Your task to perform on an android device: turn on notifications settings in the gmail app Image 0: 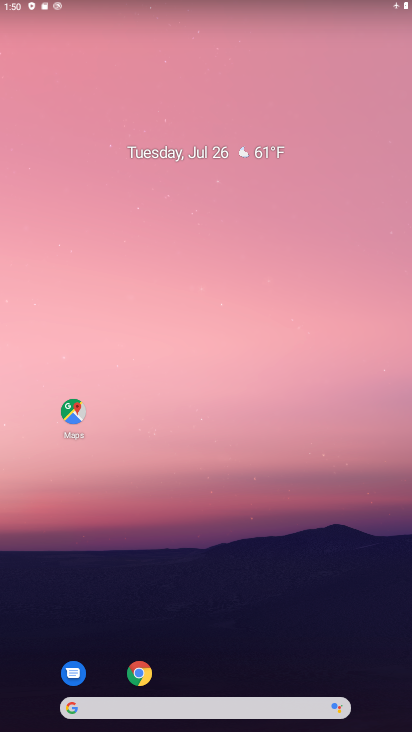
Step 0: click (229, 38)
Your task to perform on an android device: turn on notifications settings in the gmail app Image 1: 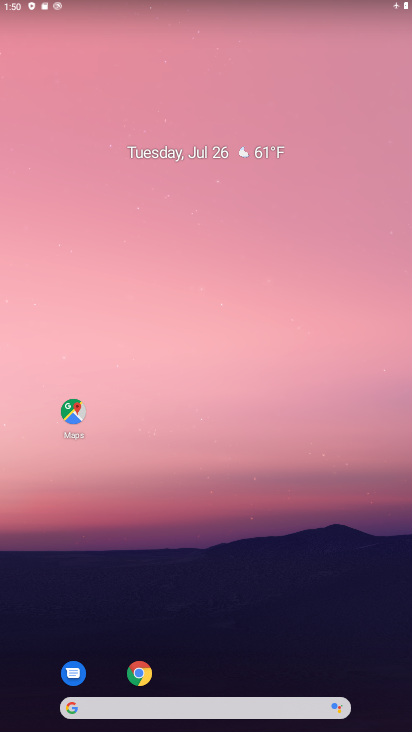
Step 1: drag from (206, 617) to (271, 171)
Your task to perform on an android device: turn on notifications settings in the gmail app Image 2: 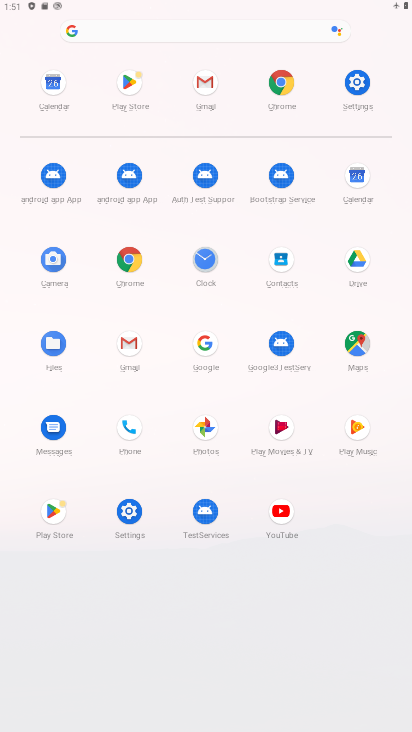
Step 2: click (123, 348)
Your task to perform on an android device: turn on notifications settings in the gmail app Image 3: 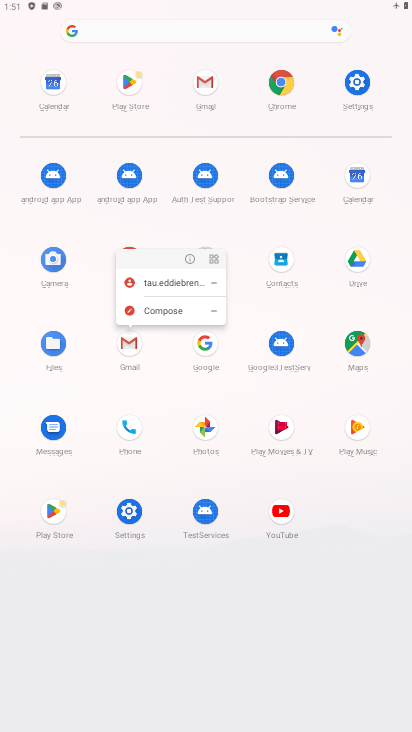
Step 3: click (189, 261)
Your task to perform on an android device: turn on notifications settings in the gmail app Image 4: 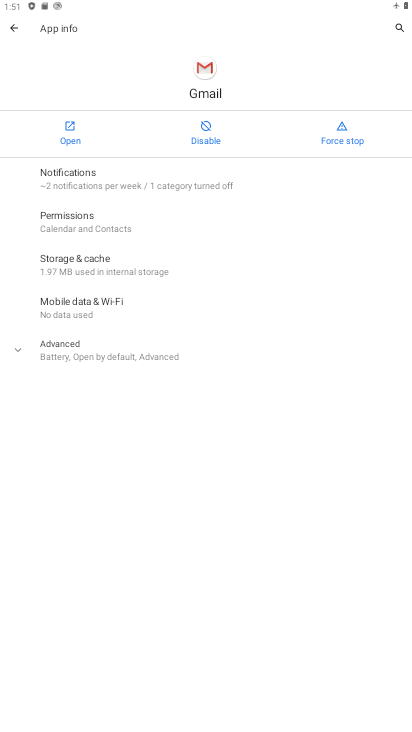
Step 4: click (82, 131)
Your task to perform on an android device: turn on notifications settings in the gmail app Image 5: 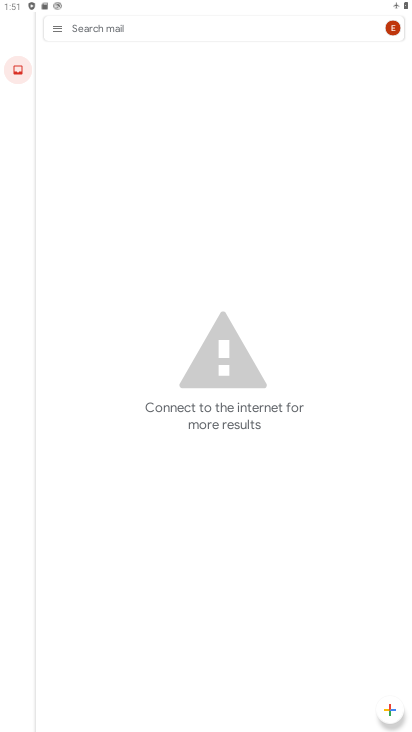
Step 5: click (58, 25)
Your task to perform on an android device: turn on notifications settings in the gmail app Image 6: 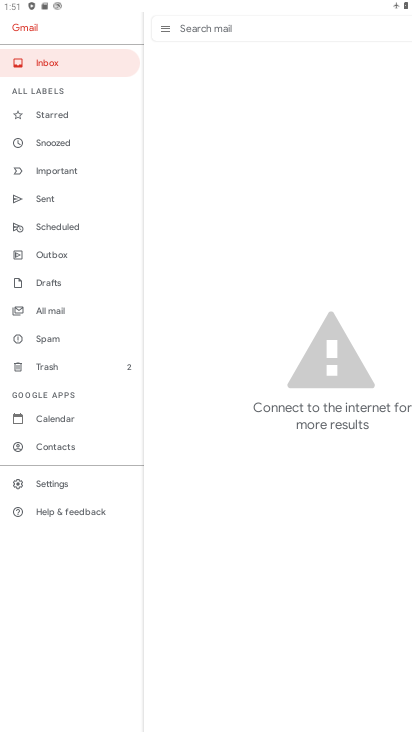
Step 6: click (53, 490)
Your task to perform on an android device: turn on notifications settings in the gmail app Image 7: 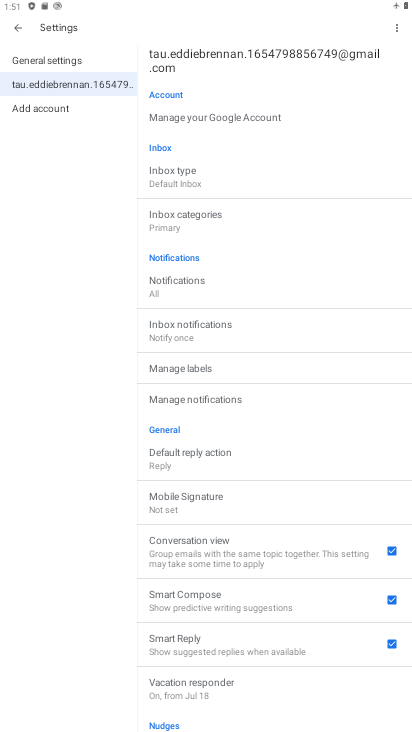
Step 7: click (215, 396)
Your task to perform on an android device: turn on notifications settings in the gmail app Image 8: 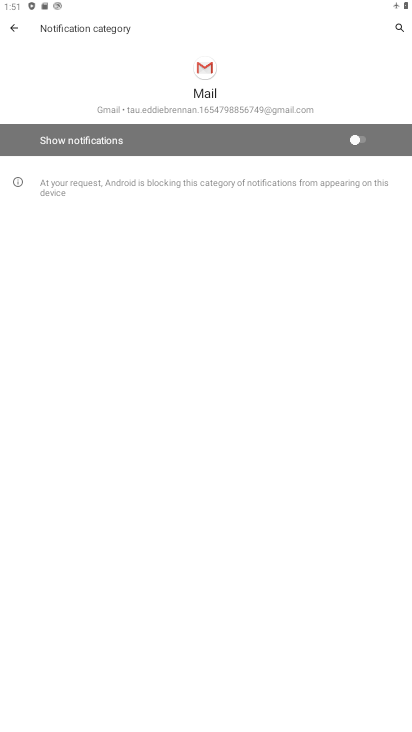
Step 8: drag from (250, 404) to (280, 215)
Your task to perform on an android device: turn on notifications settings in the gmail app Image 9: 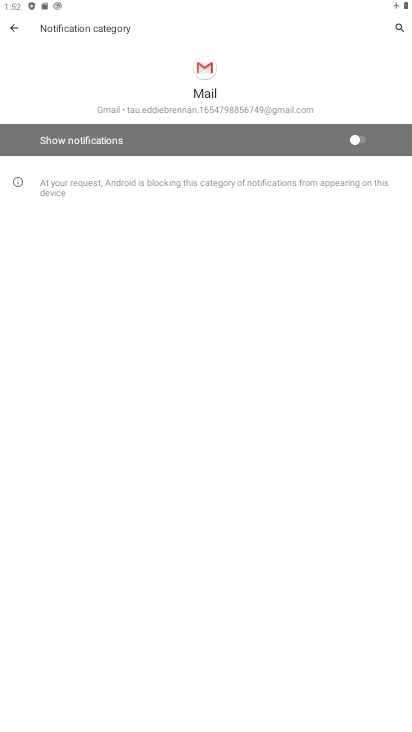
Step 9: click (291, 148)
Your task to perform on an android device: turn on notifications settings in the gmail app Image 10: 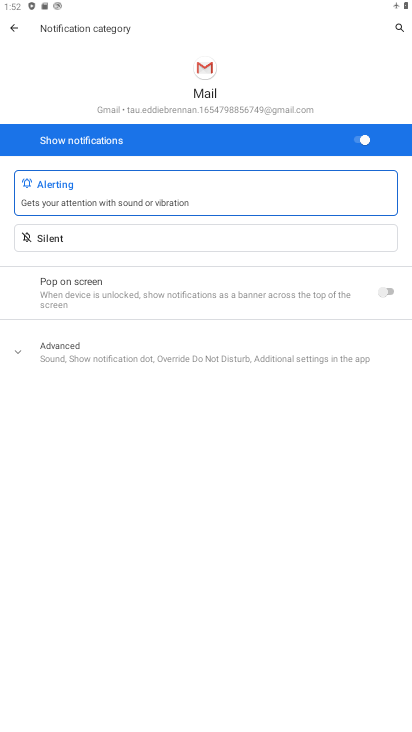
Step 10: task complete